Your task to perform on an android device: Open Youtube and go to the subscriptions tab Image 0: 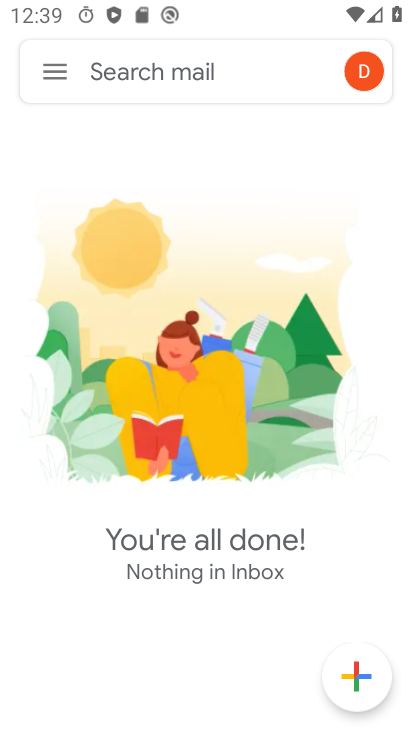
Step 0: press home button
Your task to perform on an android device: Open Youtube and go to the subscriptions tab Image 1: 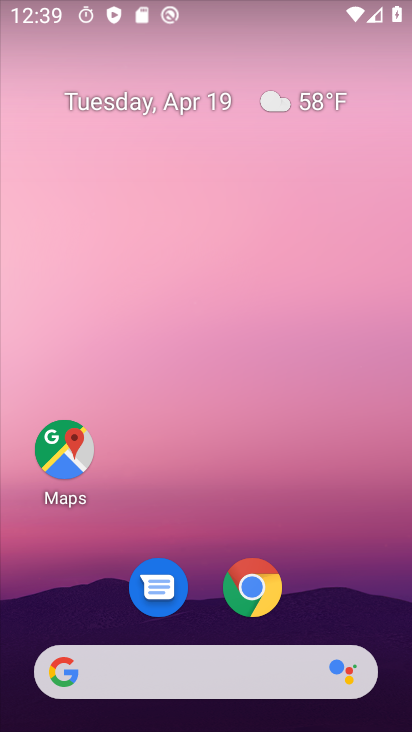
Step 1: drag from (375, 584) to (391, 120)
Your task to perform on an android device: Open Youtube and go to the subscriptions tab Image 2: 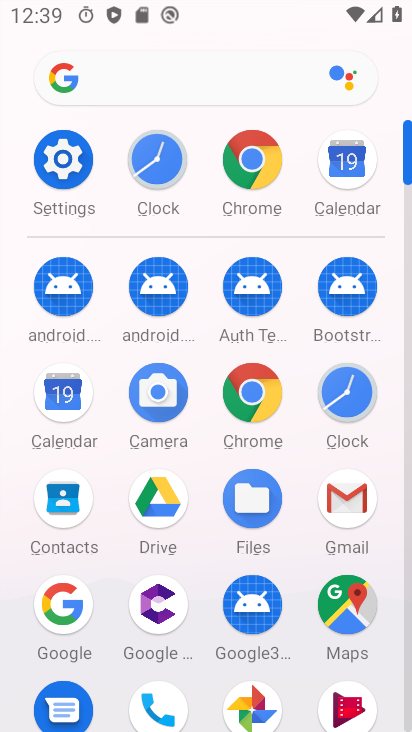
Step 2: drag from (194, 657) to (194, 313)
Your task to perform on an android device: Open Youtube and go to the subscriptions tab Image 3: 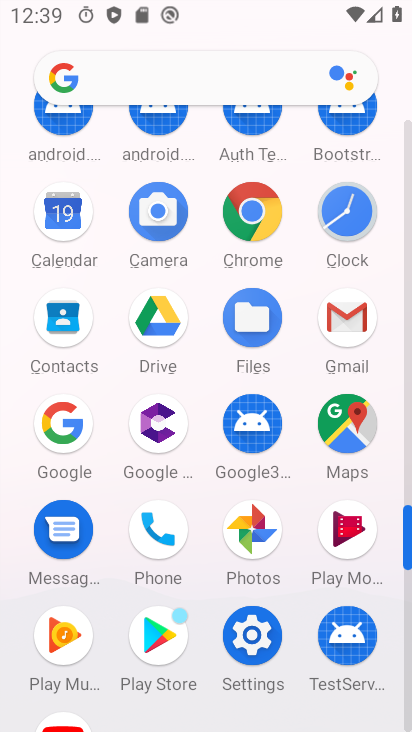
Step 3: drag from (200, 700) to (220, 303)
Your task to perform on an android device: Open Youtube and go to the subscriptions tab Image 4: 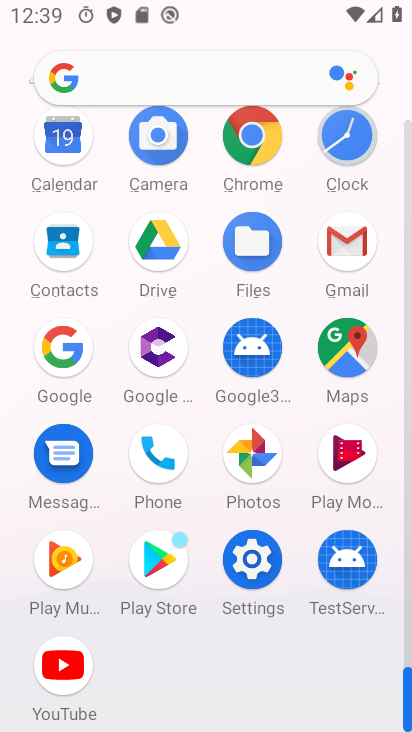
Step 4: click (78, 651)
Your task to perform on an android device: Open Youtube and go to the subscriptions tab Image 5: 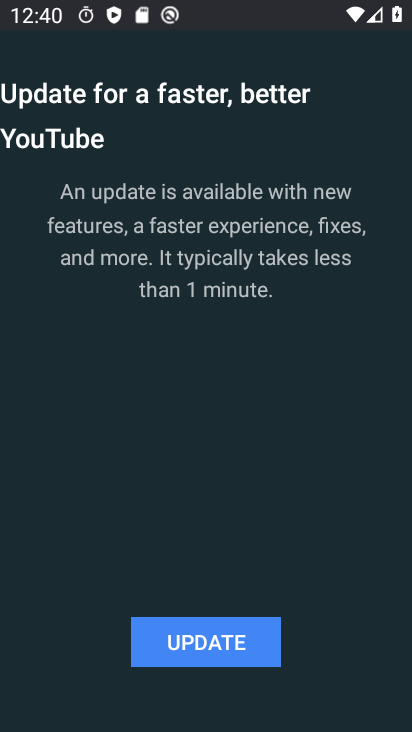
Step 5: click (238, 663)
Your task to perform on an android device: Open Youtube and go to the subscriptions tab Image 6: 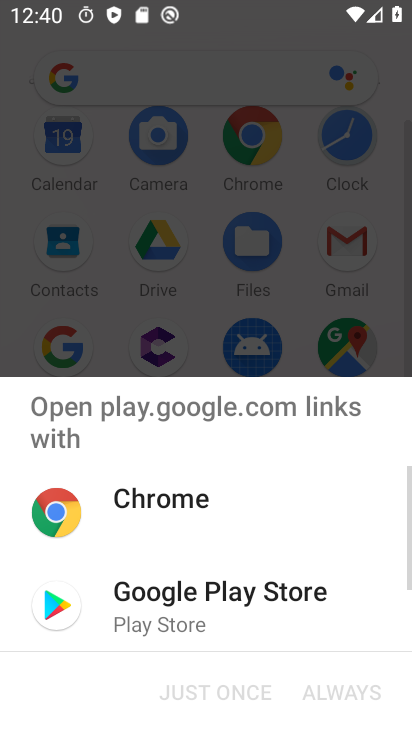
Step 6: click (199, 606)
Your task to perform on an android device: Open Youtube and go to the subscriptions tab Image 7: 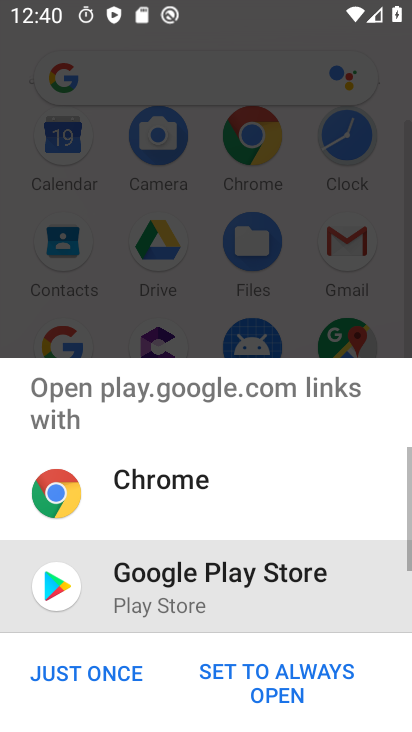
Step 7: click (90, 685)
Your task to perform on an android device: Open Youtube and go to the subscriptions tab Image 8: 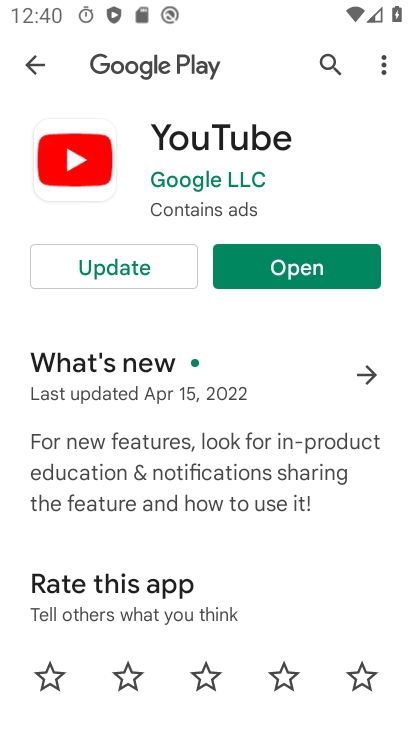
Step 8: click (135, 262)
Your task to perform on an android device: Open Youtube and go to the subscriptions tab Image 9: 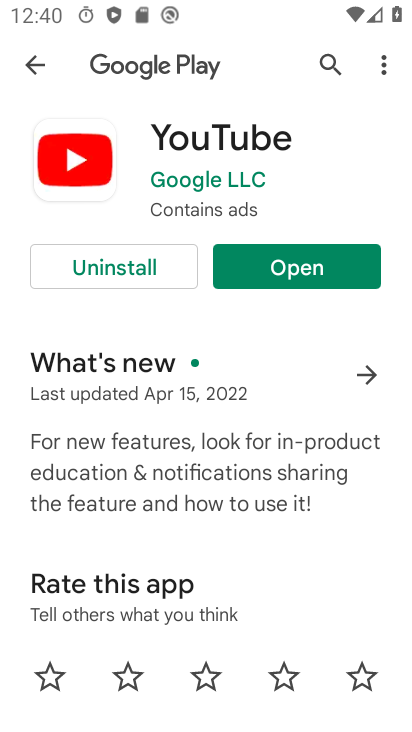
Step 9: click (333, 280)
Your task to perform on an android device: Open Youtube and go to the subscriptions tab Image 10: 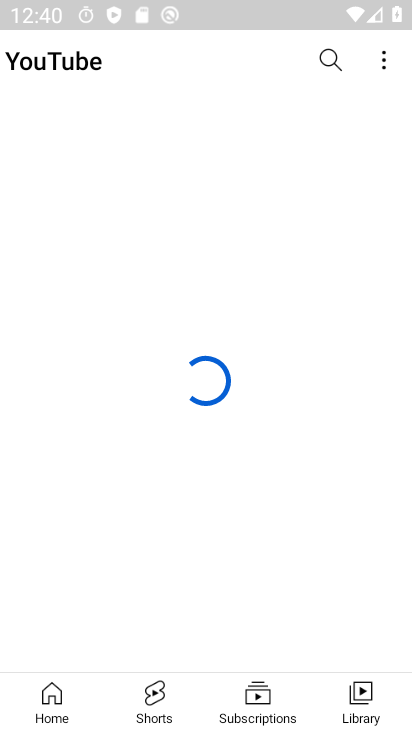
Step 10: click (254, 673)
Your task to perform on an android device: Open Youtube and go to the subscriptions tab Image 11: 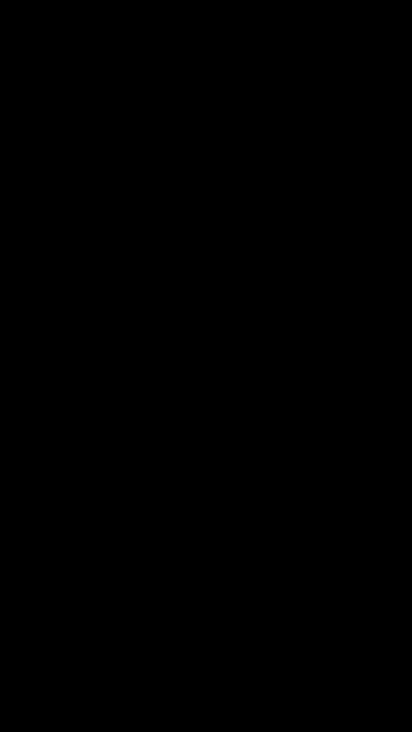
Step 11: task complete